Your task to perform on an android device: Checkthe settings for the Amazon Prime Music app Image 0: 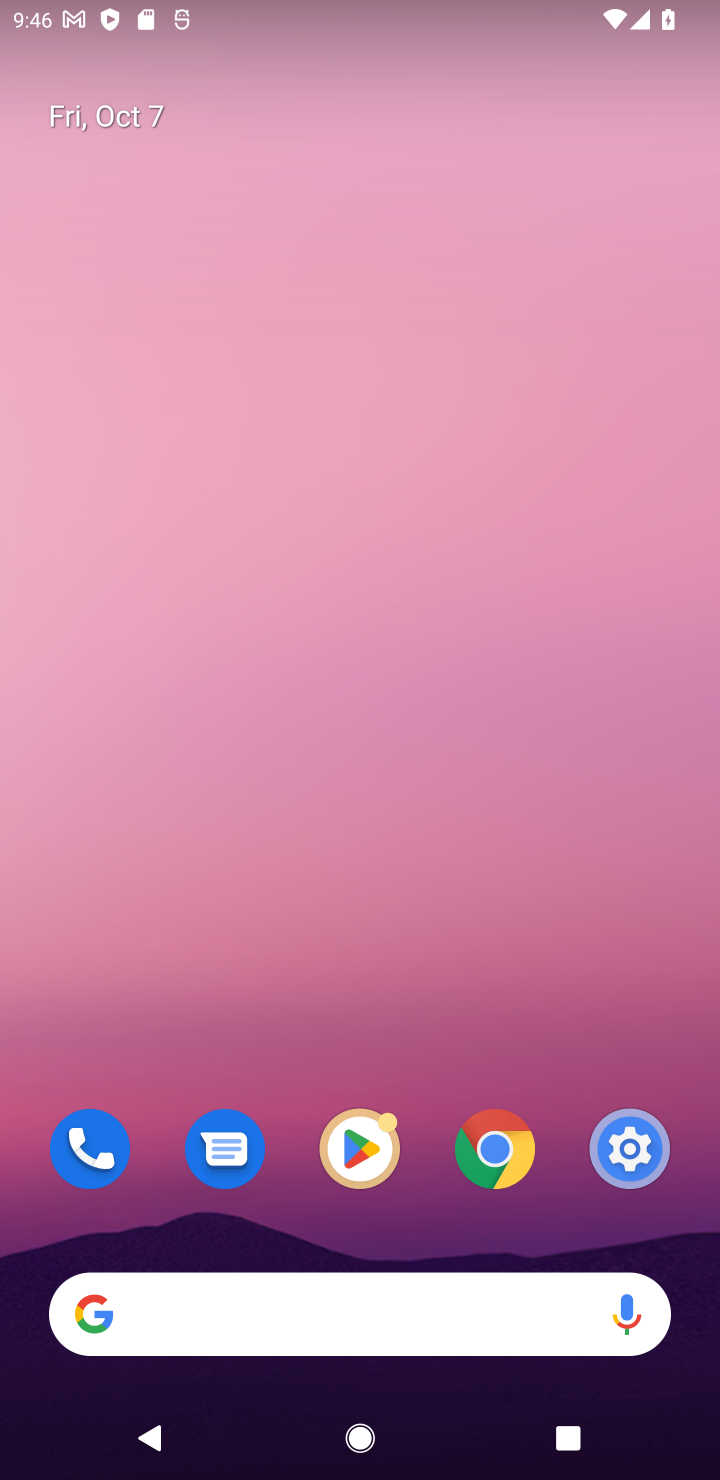
Step 0: task impossible